Your task to perform on an android device: turn on the 24-hour format for clock Image 0: 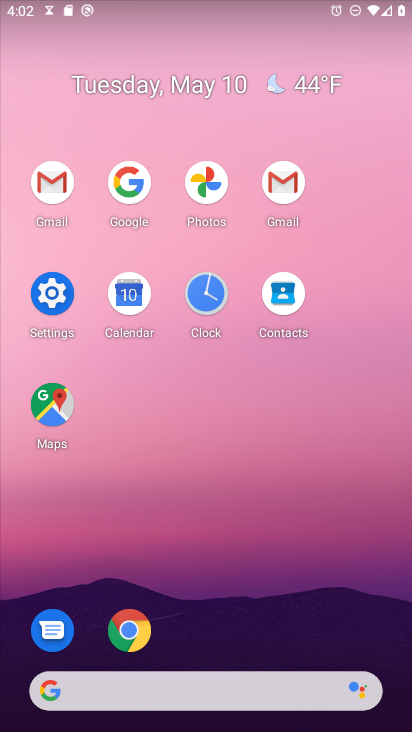
Step 0: click (213, 290)
Your task to perform on an android device: turn on the 24-hour format for clock Image 1: 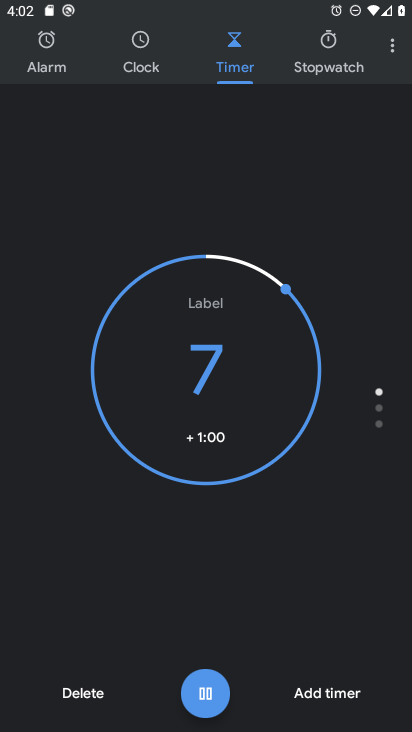
Step 1: click (385, 46)
Your task to perform on an android device: turn on the 24-hour format for clock Image 2: 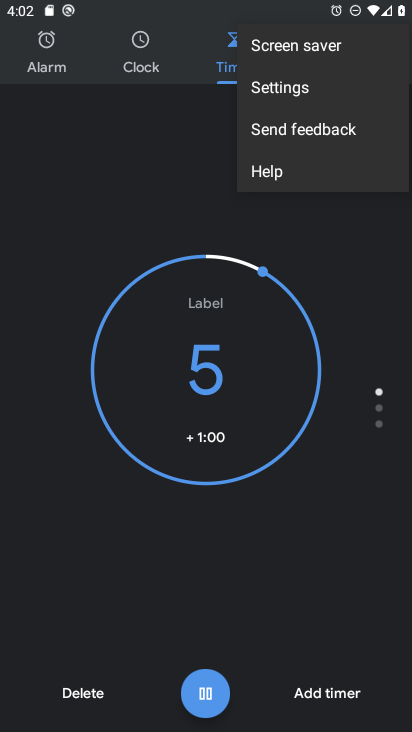
Step 2: click (294, 82)
Your task to perform on an android device: turn on the 24-hour format for clock Image 3: 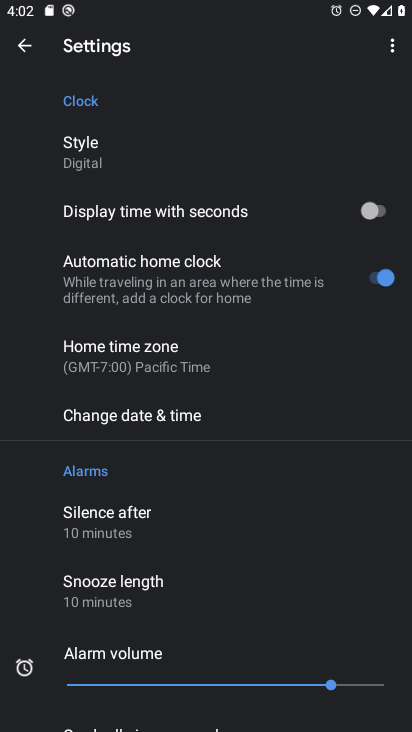
Step 3: click (248, 249)
Your task to perform on an android device: turn on the 24-hour format for clock Image 4: 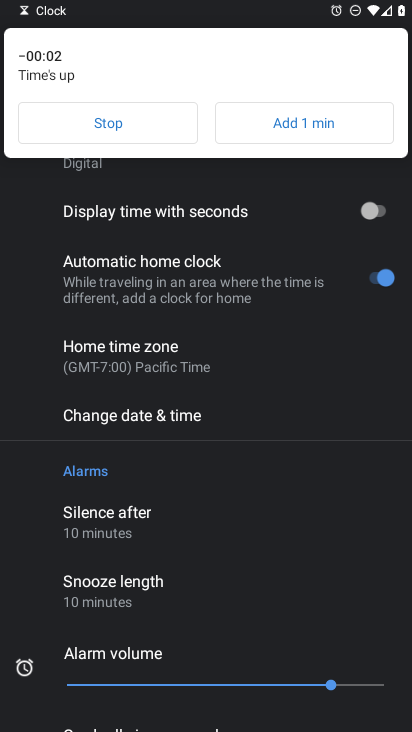
Step 4: click (192, 419)
Your task to perform on an android device: turn on the 24-hour format for clock Image 5: 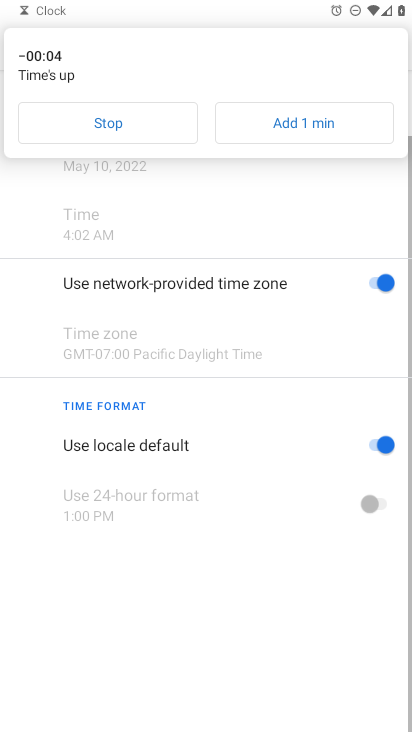
Step 5: click (79, 123)
Your task to perform on an android device: turn on the 24-hour format for clock Image 6: 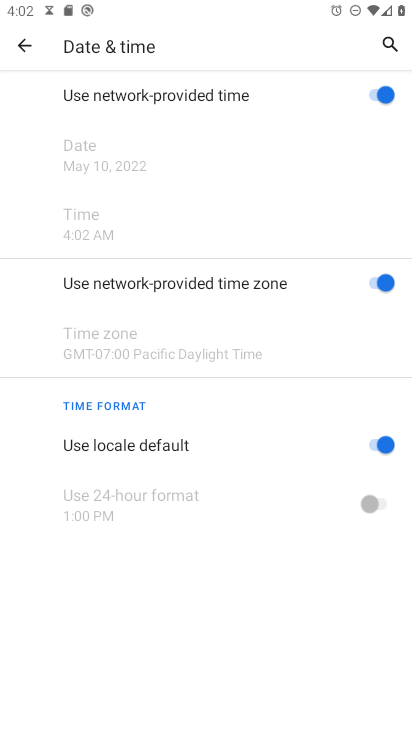
Step 6: click (393, 438)
Your task to perform on an android device: turn on the 24-hour format for clock Image 7: 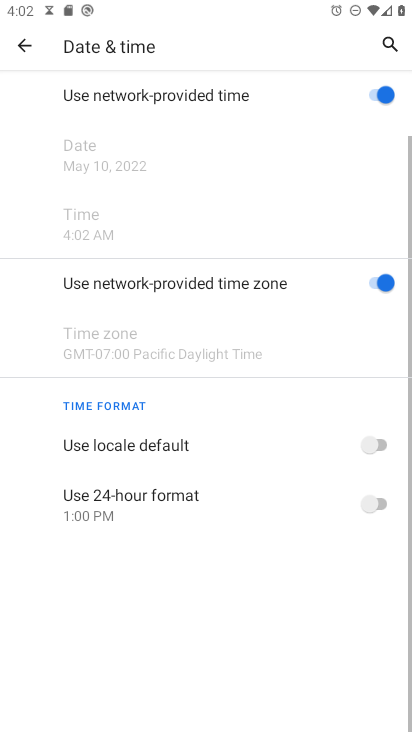
Step 7: click (378, 510)
Your task to perform on an android device: turn on the 24-hour format for clock Image 8: 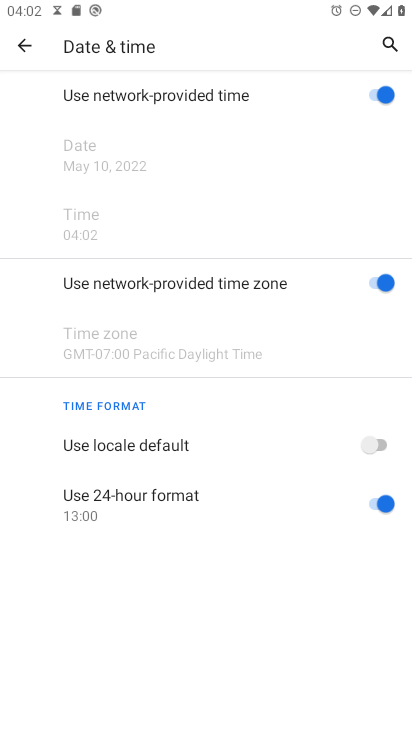
Step 8: task complete